Your task to perform on an android device: remove spam from my inbox in the gmail app Image 0: 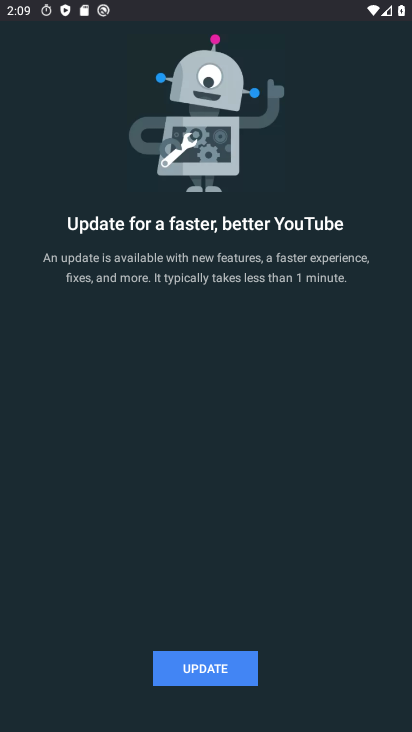
Step 0: press home button
Your task to perform on an android device: remove spam from my inbox in the gmail app Image 1: 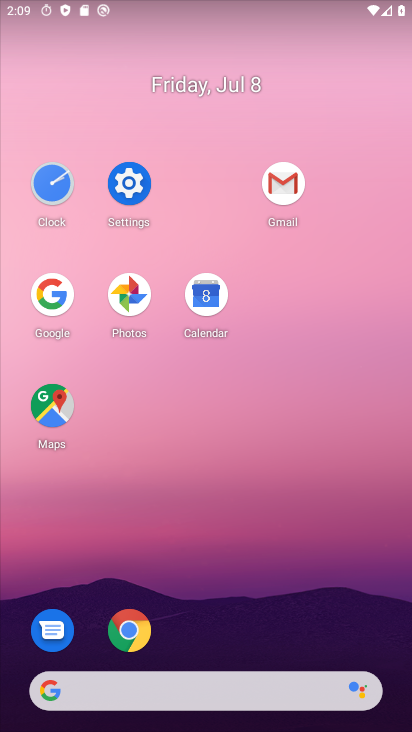
Step 1: click (272, 182)
Your task to perform on an android device: remove spam from my inbox in the gmail app Image 2: 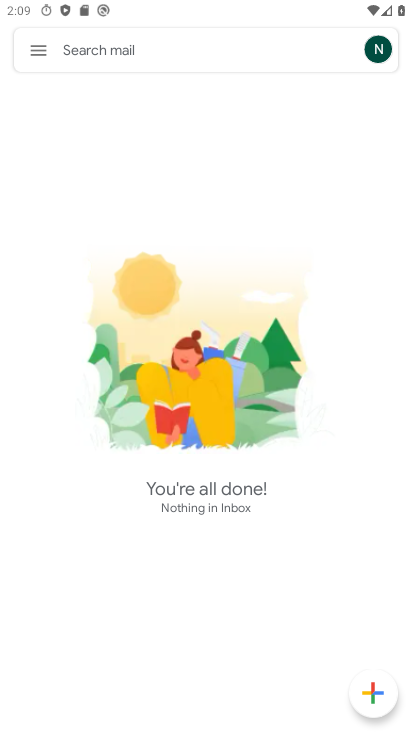
Step 2: click (46, 55)
Your task to perform on an android device: remove spam from my inbox in the gmail app Image 3: 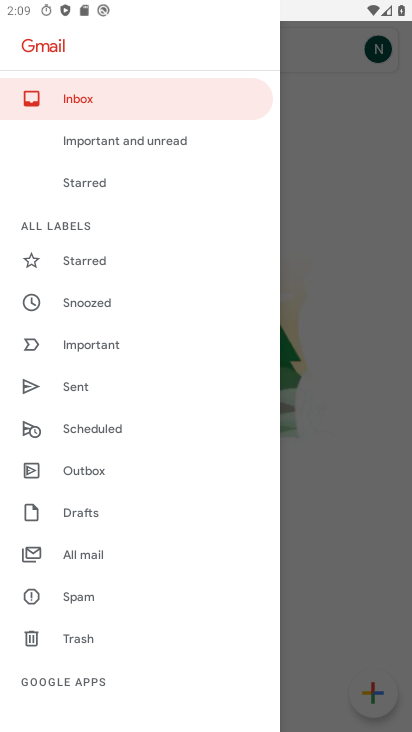
Step 3: click (94, 592)
Your task to perform on an android device: remove spam from my inbox in the gmail app Image 4: 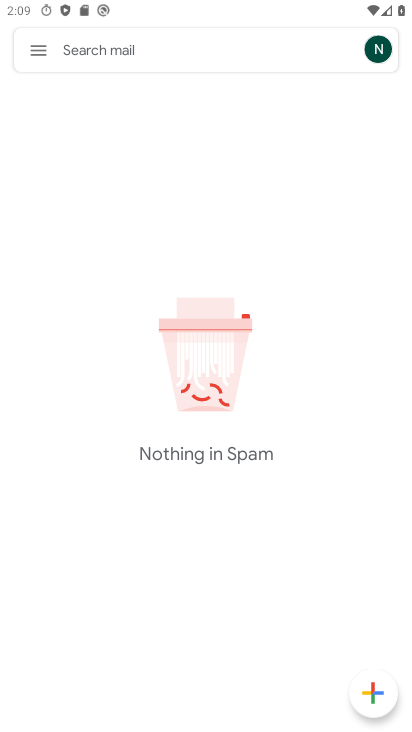
Step 4: task complete